Your task to perform on an android device: Play the last video I watched on Youtube Image 0: 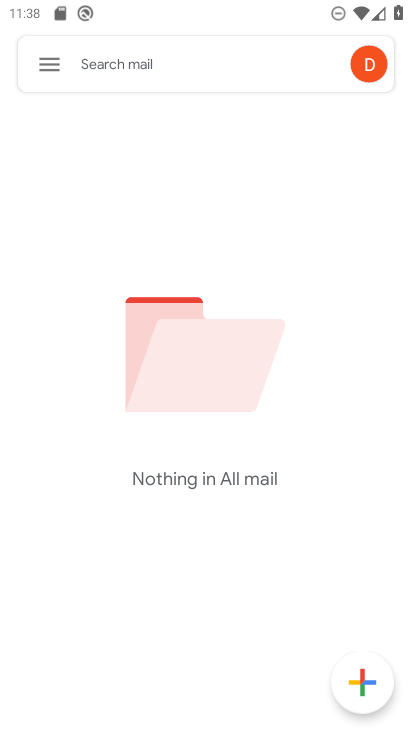
Step 0: press back button
Your task to perform on an android device: Play the last video I watched on Youtube Image 1: 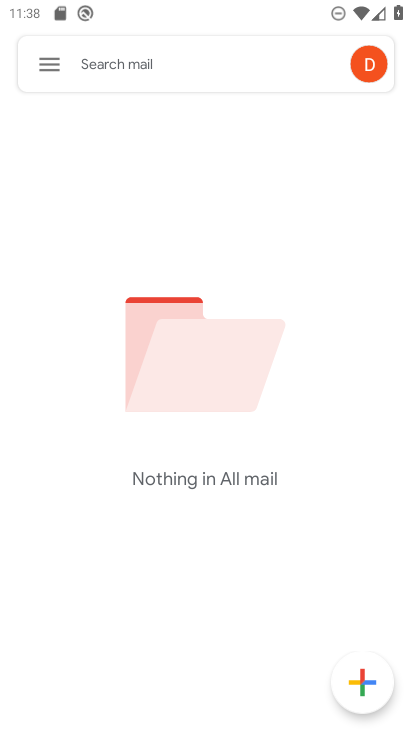
Step 1: press back button
Your task to perform on an android device: Play the last video I watched on Youtube Image 2: 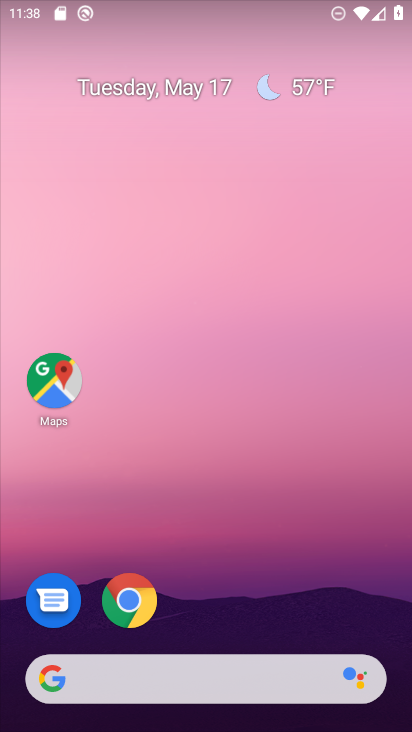
Step 2: press back button
Your task to perform on an android device: Play the last video I watched on Youtube Image 3: 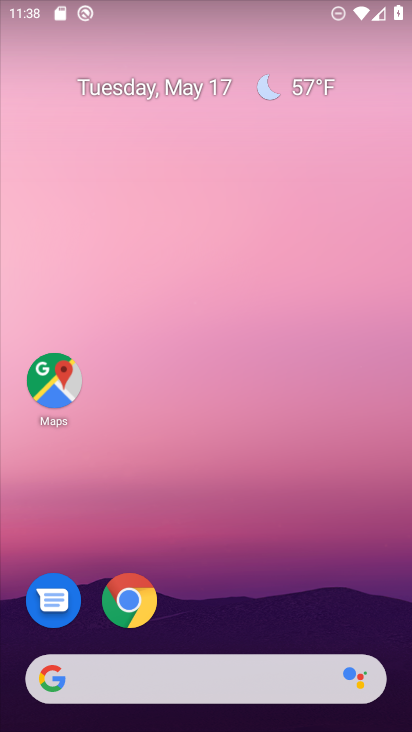
Step 3: press home button
Your task to perform on an android device: Play the last video I watched on Youtube Image 4: 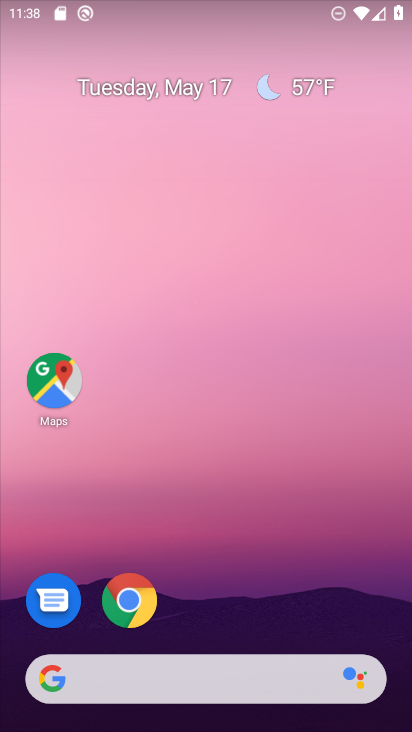
Step 4: drag from (119, 93) to (405, 319)
Your task to perform on an android device: Play the last video I watched on Youtube Image 5: 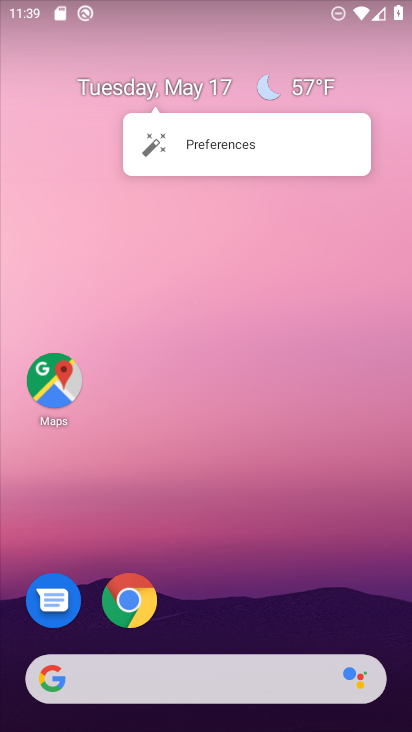
Step 5: drag from (265, 566) to (168, 158)
Your task to perform on an android device: Play the last video I watched on Youtube Image 6: 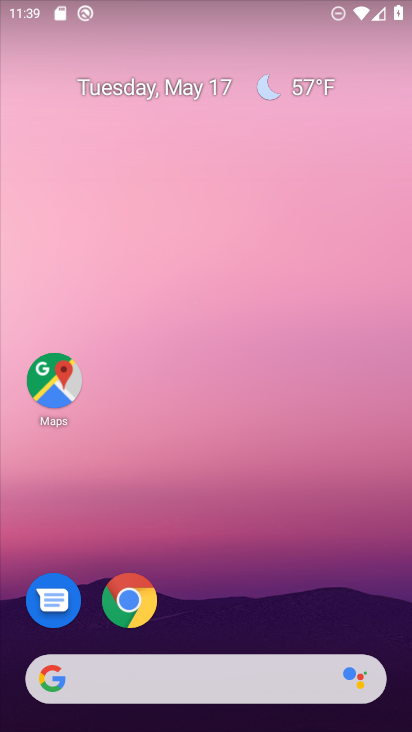
Step 6: drag from (256, 482) to (164, 3)
Your task to perform on an android device: Play the last video I watched on Youtube Image 7: 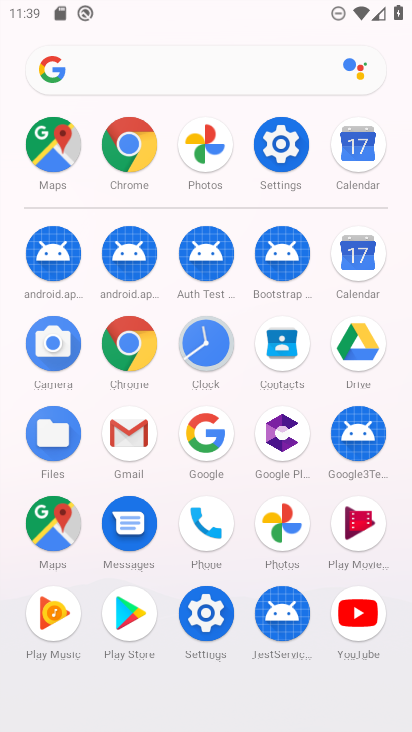
Step 7: drag from (274, 427) to (286, 23)
Your task to perform on an android device: Play the last video I watched on Youtube Image 8: 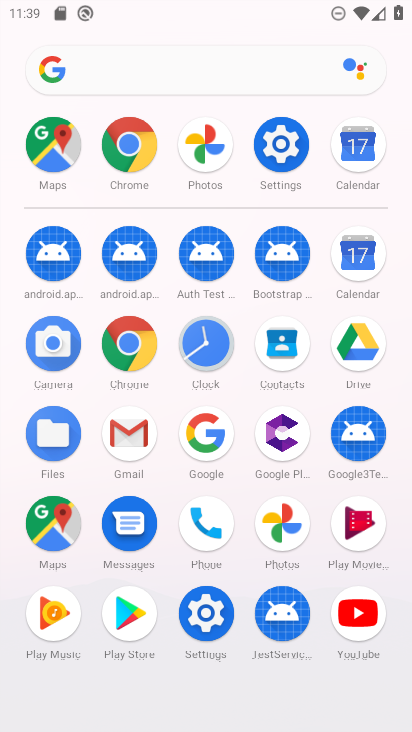
Step 8: click (361, 612)
Your task to perform on an android device: Play the last video I watched on Youtube Image 9: 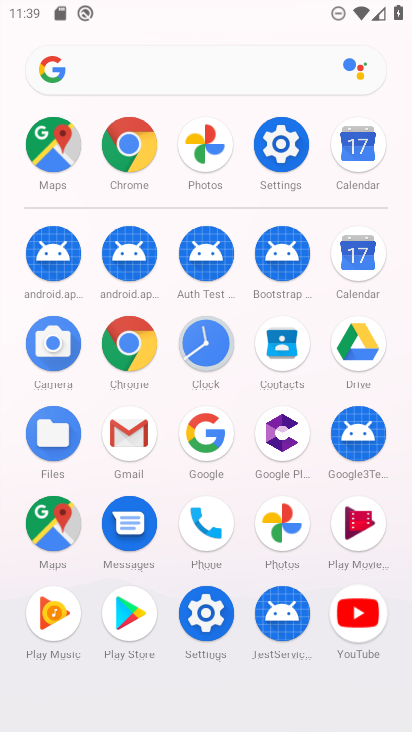
Step 9: click (361, 612)
Your task to perform on an android device: Play the last video I watched on Youtube Image 10: 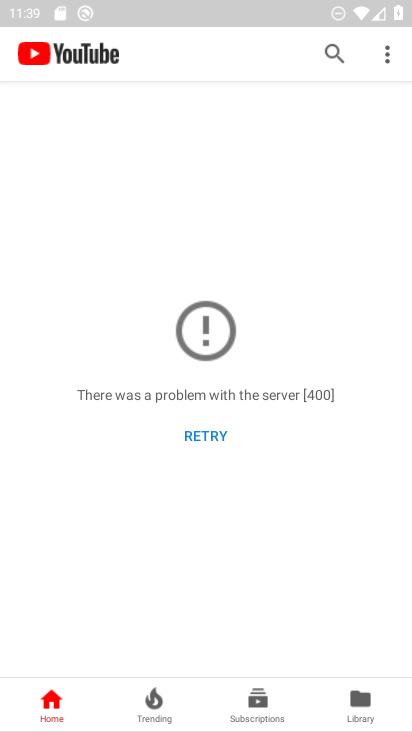
Step 10: task complete